Your task to perform on an android device: Open settings on Google Maps Image 0: 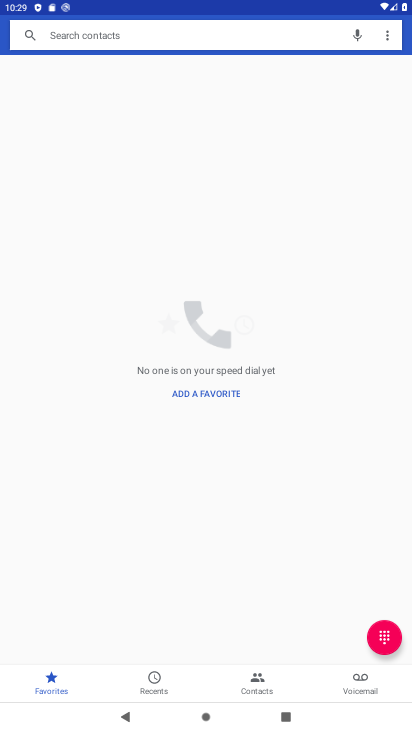
Step 0: press home button
Your task to perform on an android device: Open settings on Google Maps Image 1: 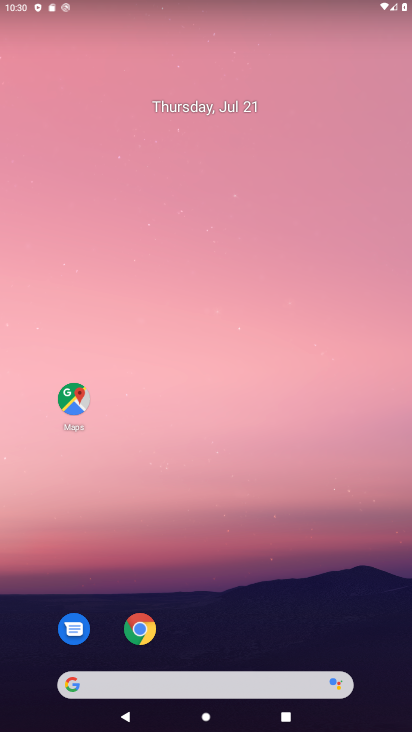
Step 1: click (74, 398)
Your task to perform on an android device: Open settings on Google Maps Image 2: 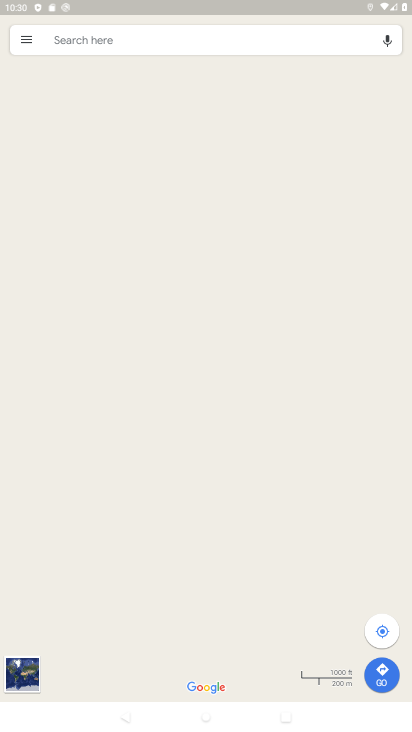
Step 2: click (25, 41)
Your task to perform on an android device: Open settings on Google Maps Image 3: 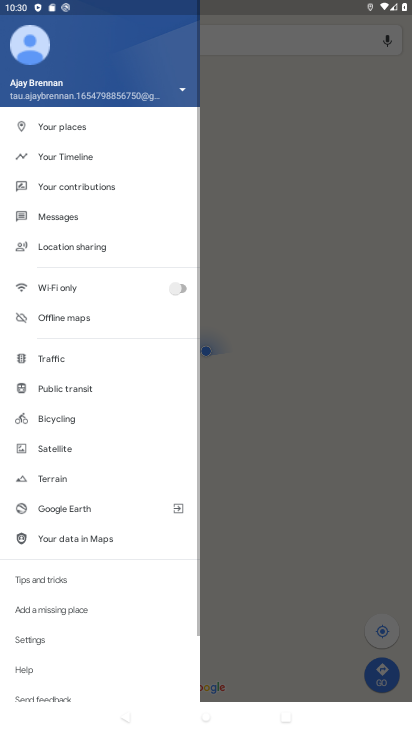
Step 3: click (39, 644)
Your task to perform on an android device: Open settings on Google Maps Image 4: 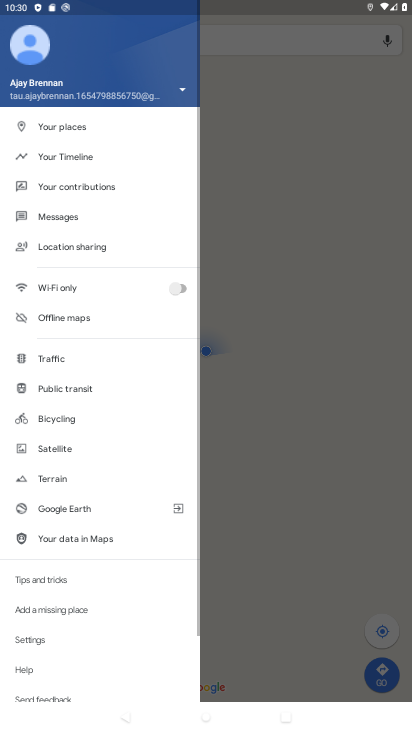
Step 4: click (37, 642)
Your task to perform on an android device: Open settings on Google Maps Image 5: 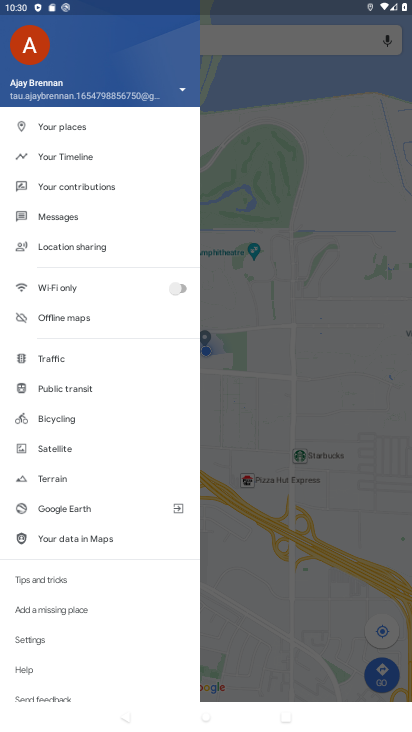
Step 5: click (34, 647)
Your task to perform on an android device: Open settings on Google Maps Image 6: 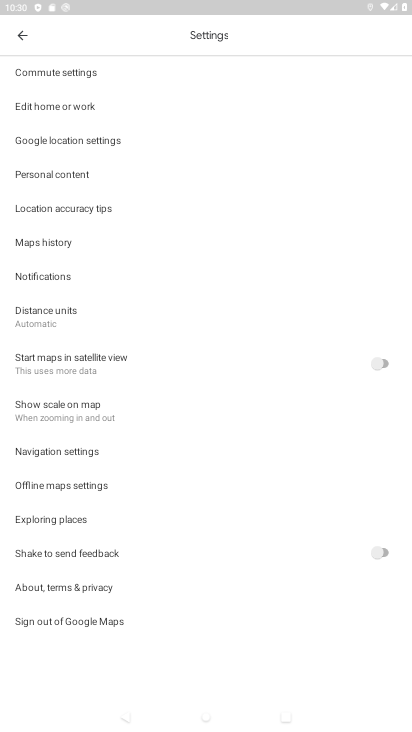
Step 6: task complete